Your task to perform on an android device: Open Chrome and go to the settings page Image 0: 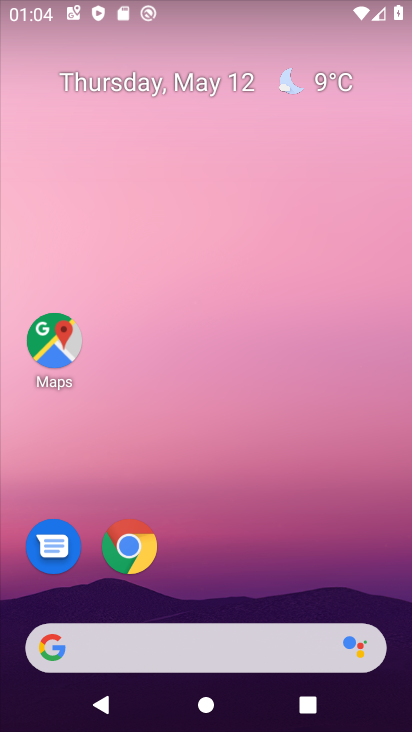
Step 0: click (133, 543)
Your task to perform on an android device: Open Chrome and go to the settings page Image 1: 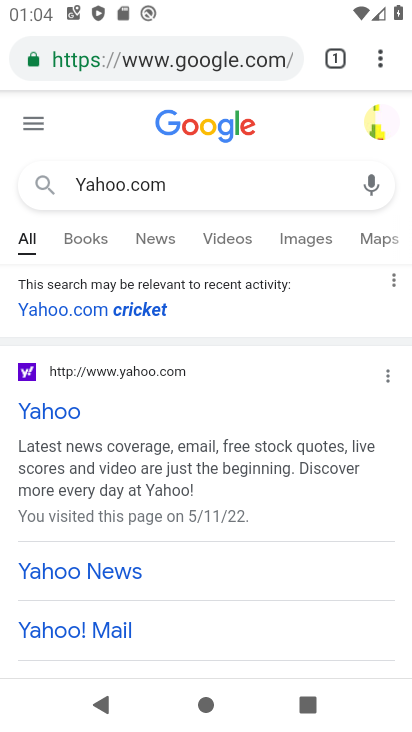
Step 1: click (378, 64)
Your task to perform on an android device: Open Chrome and go to the settings page Image 2: 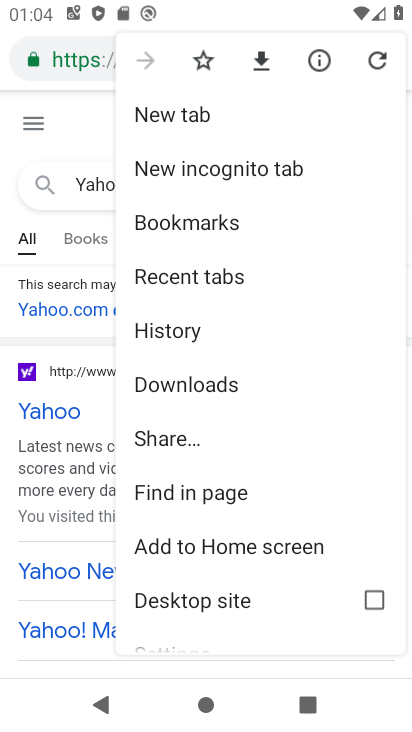
Step 2: drag from (189, 501) to (209, 207)
Your task to perform on an android device: Open Chrome and go to the settings page Image 3: 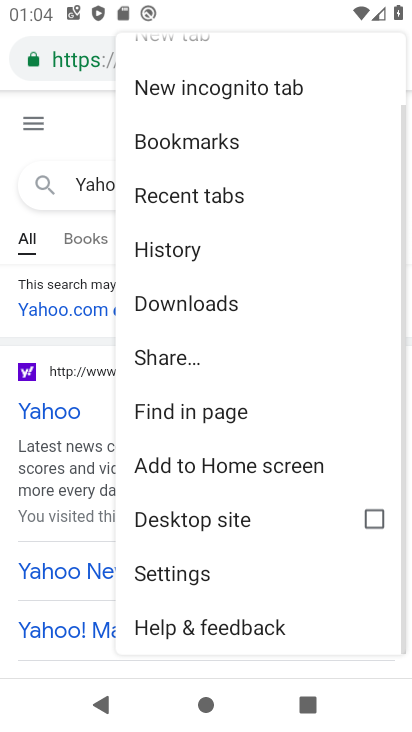
Step 3: click (173, 570)
Your task to perform on an android device: Open Chrome and go to the settings page Image 4: 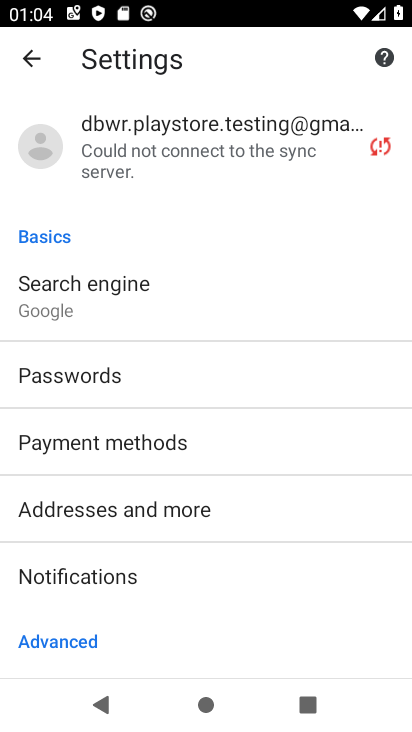
Step 4: task complete